Your task to perform on an android device: empty trash in google photos Image 0: 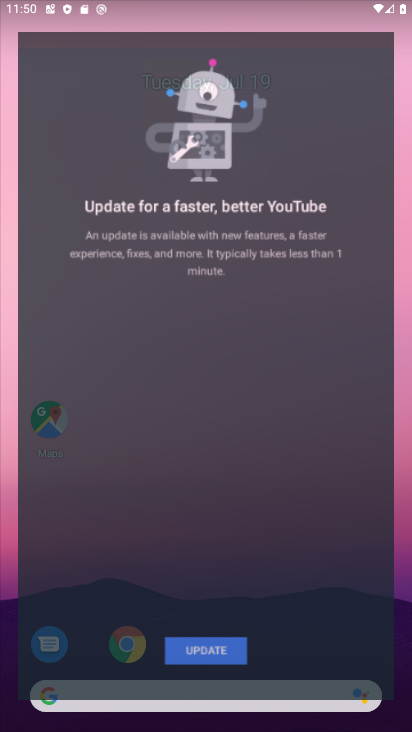
Step 0: drag from (235, 600) to (303, 100)
Your task to perform on an android device: empty trash in google photos Image 1: 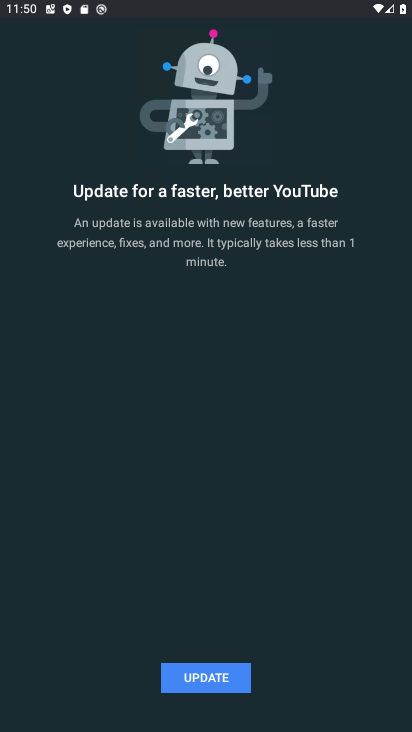
Step 1: press home button
Your task to perform on an android device: empty trash in google photos Image 2: 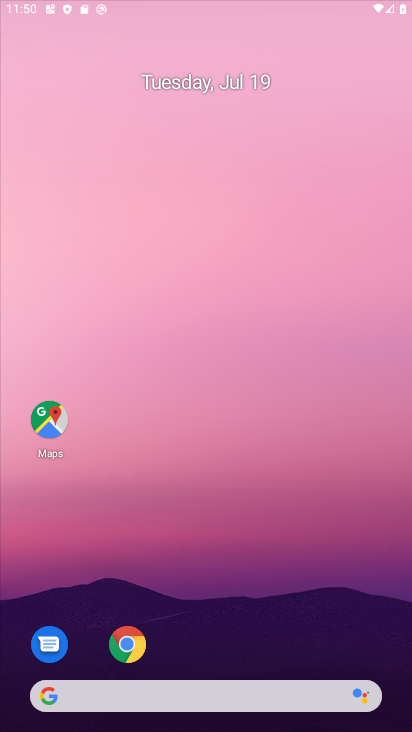
Step 2: drag from (239, 688) to (240, 66)
Your task to perform on an android device: empty trash in google photos Image 3: 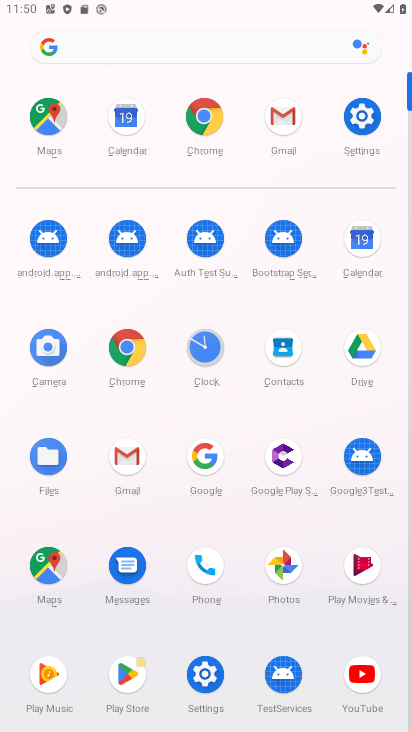
Step 3: click (270, 578)
Your task to perform on an android device: empty trash in google photos Image 4: 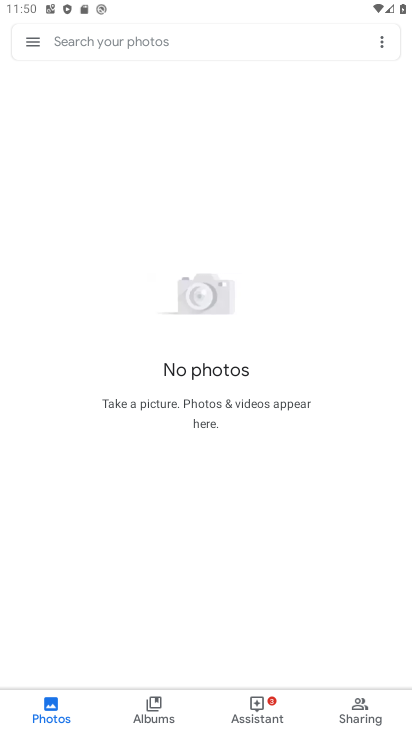
Step 4: click (22, 47)
Your task to perform on an android device: empty trash in google photos Image 5: 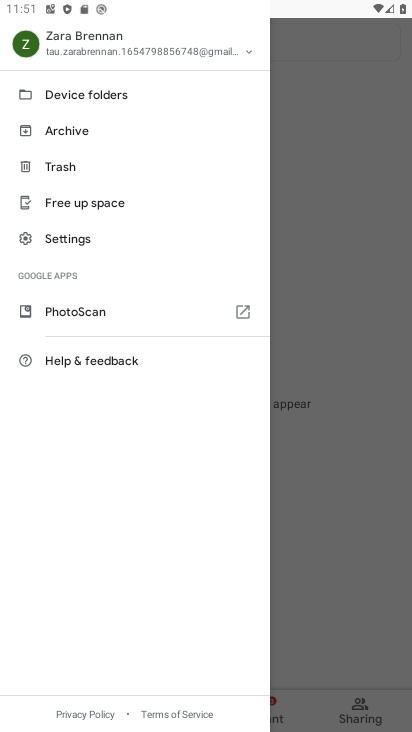
Step 5: click (47, 177)
Your task to perform on an android device: empty trash in google photos Image 6: 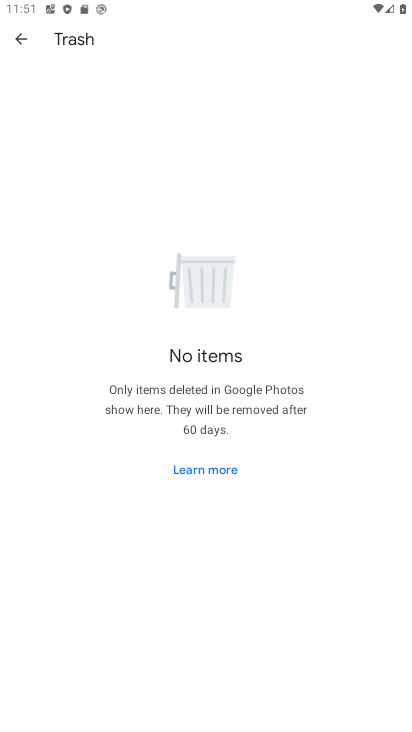
Step 6: task complete